Your task to perform on an android device: turn vacation reply on in the gmail app Image 0: 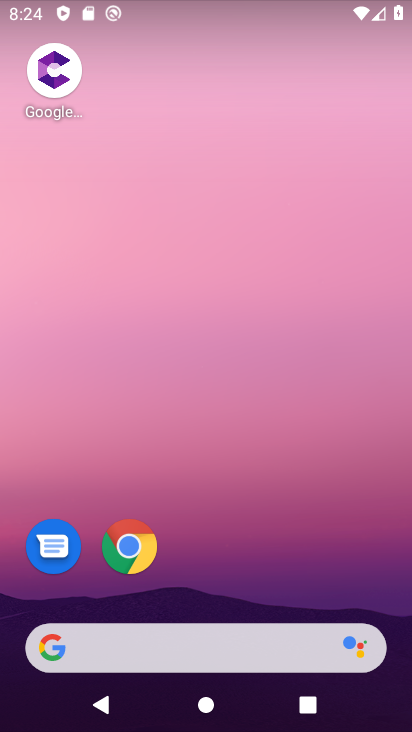
Step 0: drag from (399, 698) to (359, 73)
Your task to perform on an android device: turn vacation reply on in the gmail app Image 1: 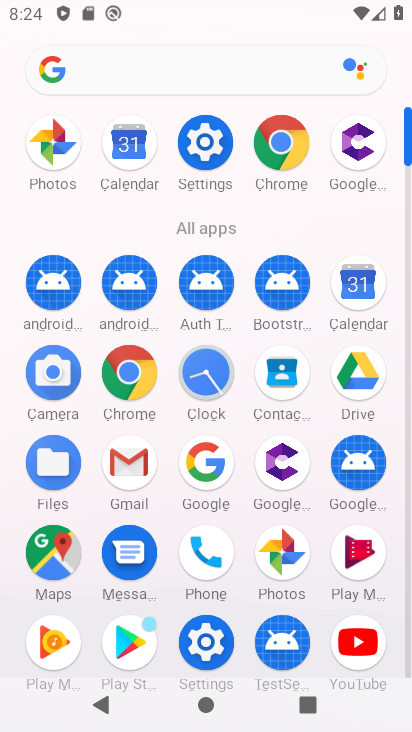
Step 1: click (123, 479)
Your task to perform on an android device: turn vacation reply on in the gmail app Image 2: 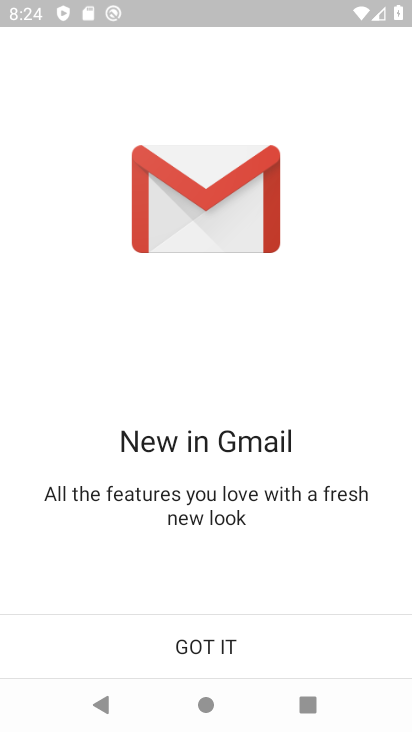
Step 2: click (212, 646)
Your task to perform on an android device: turn vacation reply on in the gmail app Image 3: 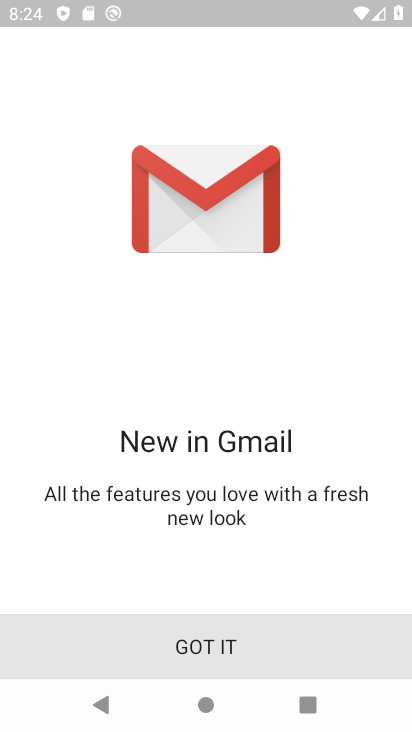
Step 3: click (212, 646)
Your task to perform on an android device: turn vacation reply on in the gmail app Image 4: 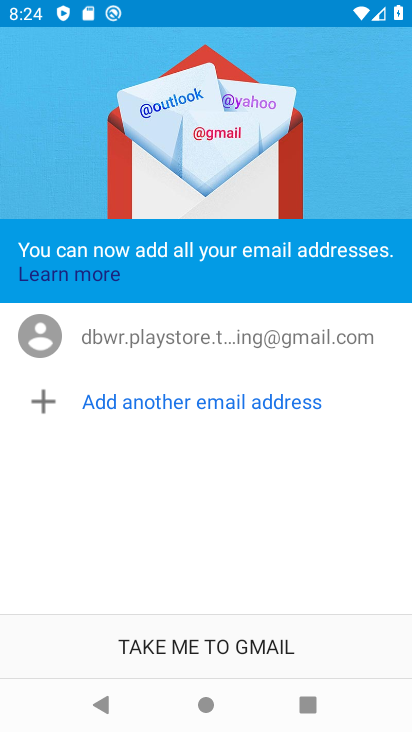
Step 4: click (212, 646)
Your task to perform on an android device: turn vacation reply on in the gmail app Image 5: 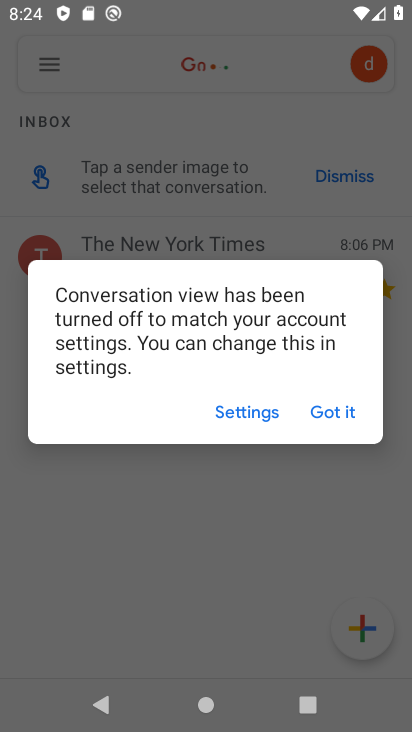
Step 5: click (317, 417)
Your task to perform on an android device: turn vacation reply on in the gmail app Image 6: 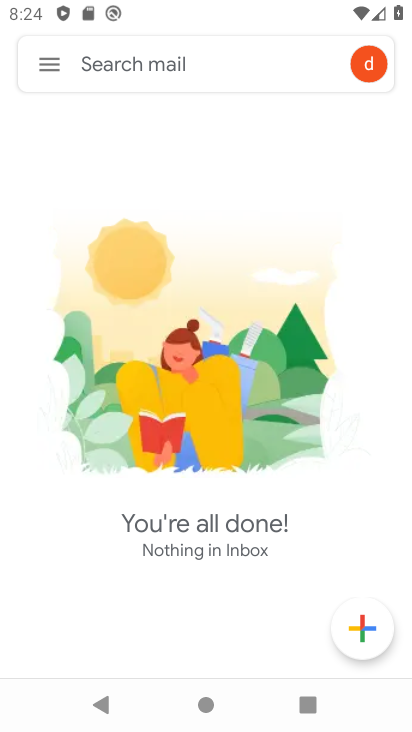
Step 6: click (54, 66)
Your task to perform on an android device: turn vacation reply on in the gmail app Image 7: 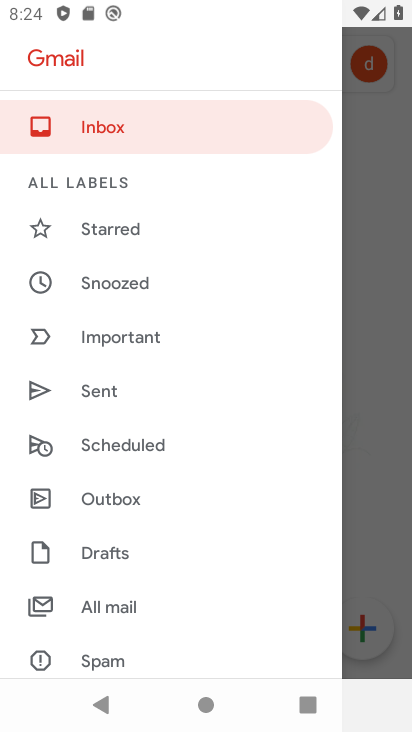
Step 7: drag from (198, 648) to (212, 186)
Your task to perform on an android device: turn vacation reply on in the gmail app Image 8: 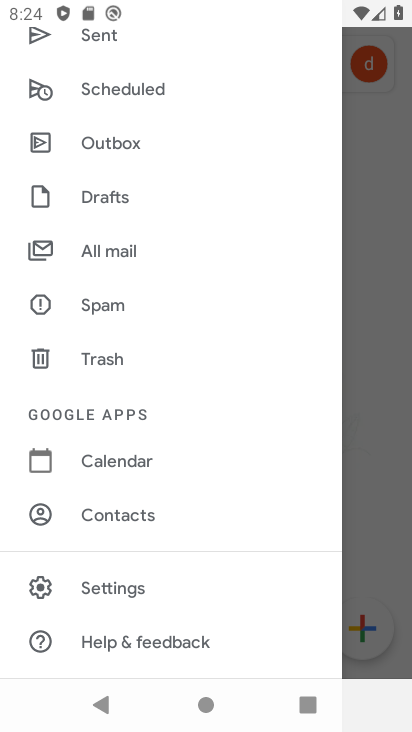
Step 8: click (95, 593)
Your task to perform on an android device: turn vacation reply on in the gmail app Image 9: 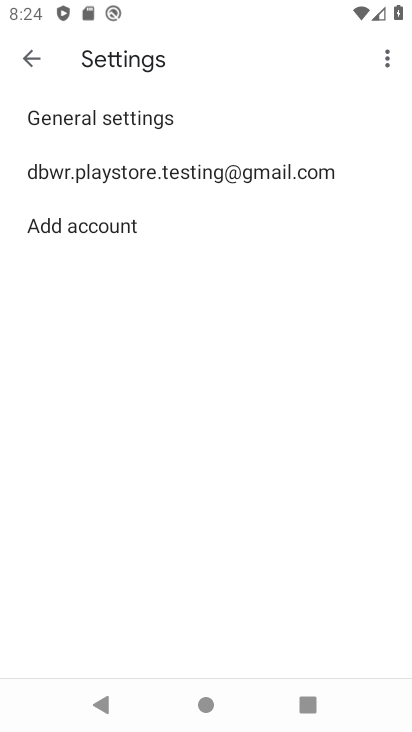
Step 9: click (98, 117)
Your task to perform on an android device: turn vacation reply on in the gmail app Image 10: 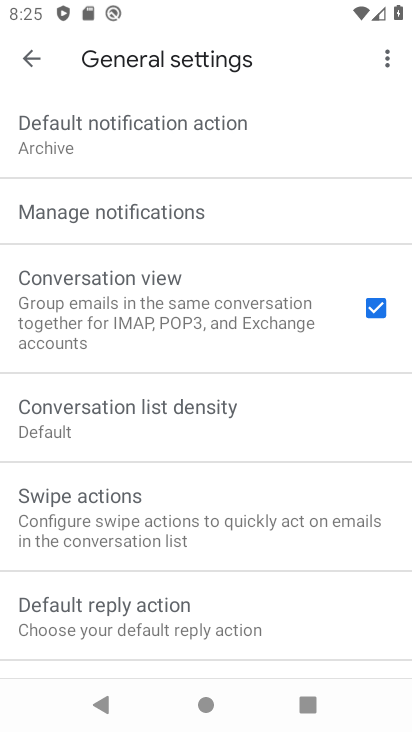
Step 10: drag from (204, 184) to (226, 454)
Your task to perform on an android device: turn vacation reply on in the gmail app Image 11: 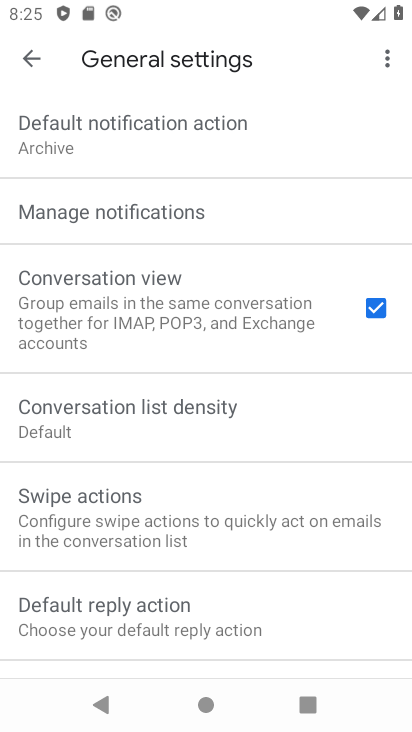
Step 11: drag from (204, 574) to (200, 201)
Your task to perform on an android device: turn vacation reply on in the gmail app Image 12: 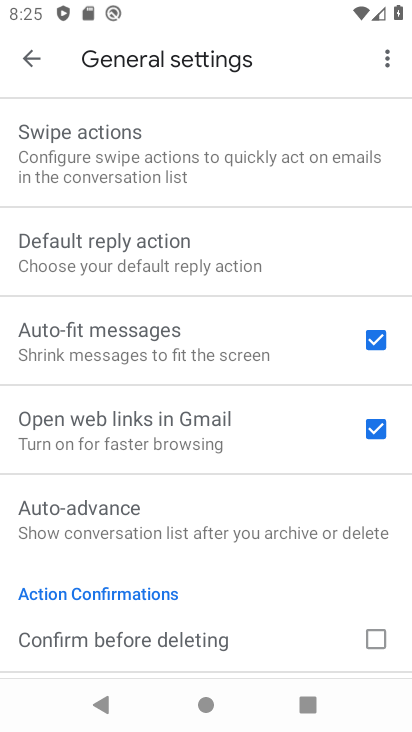
Step 12: drag from (177, 577) to (191, 267)
Your task to perform on an android device: turn vacation reply on in the gmail app Image 13: 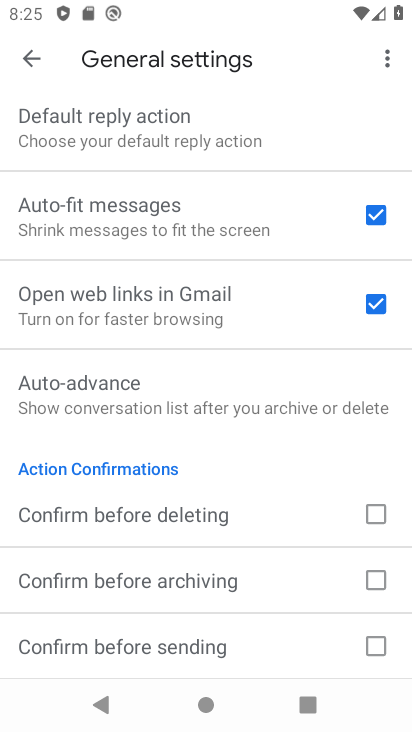
Step 13: drag from (173, 600) to (195, 253)
Your task to perform on an android device: turn vacation reply on in the gmail app Image 14: 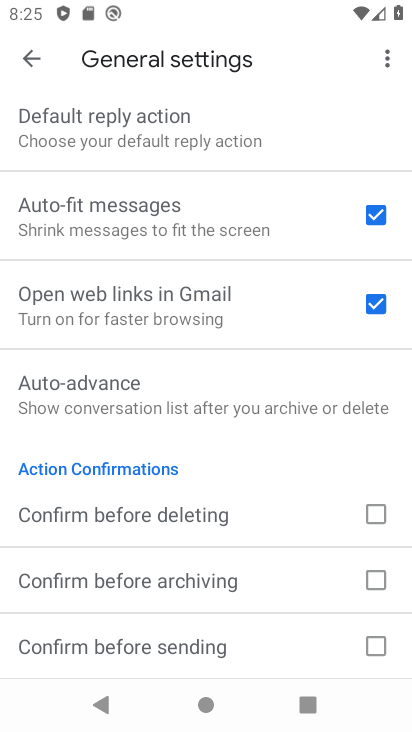
Step 14: click (36, 56)
Your task to perform on an android device: turn vacation reply on in the gmail app Image 15: 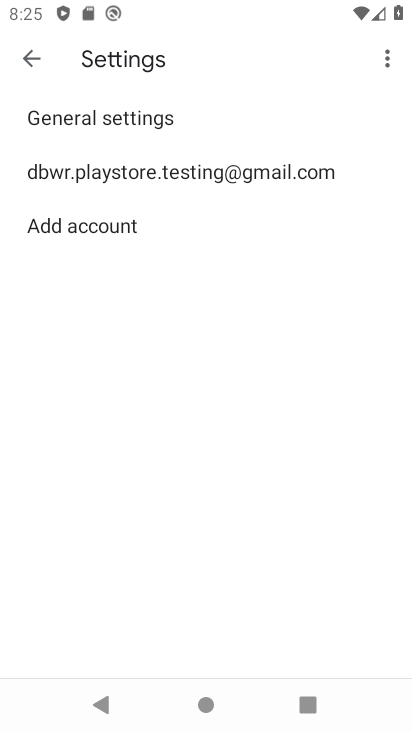
Step 15: click (50, 170)
Your task to perform on an android device: turn vacation reply on in the gmail app Image 16: 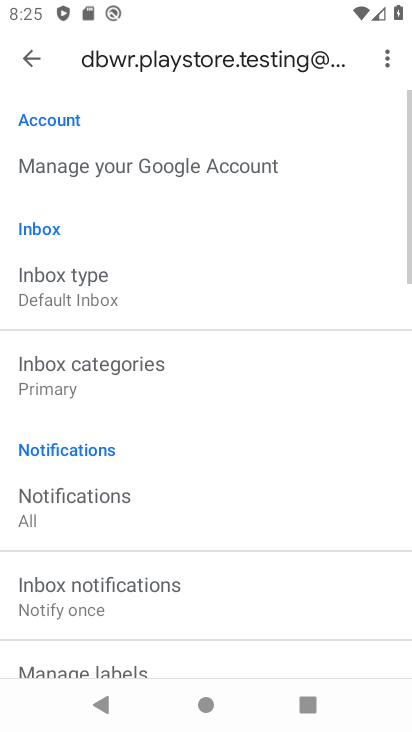
Step 16: drag from (217, 575) to (221, 186)
Your task to perform on an android device: turn vacation reply on in the gmail app Image 17: 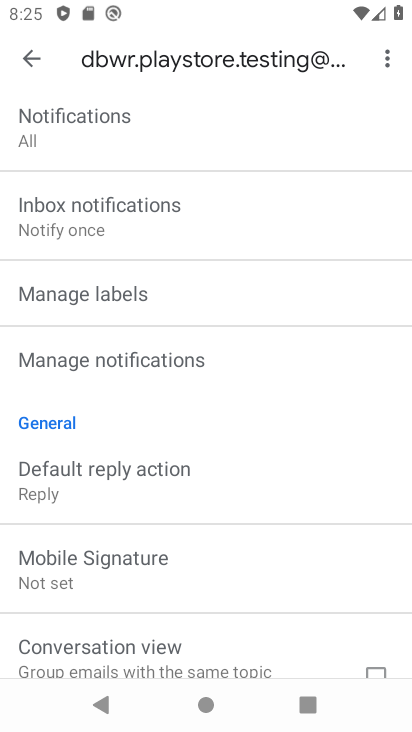
Step 17: drag from (254, 581) to (259, 161)
Your task to perform on an android device: turn vacation reply on in the gmail app Image 18: 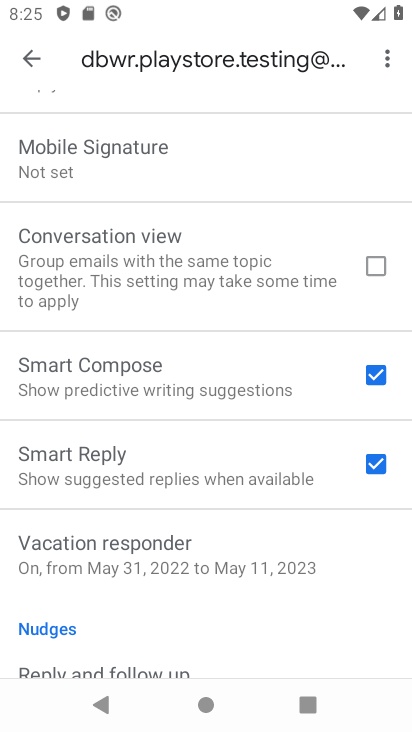
Step 18: click (191, 572)
Your task to perform on an android device: turn vacation reply on in the gmail app Image 19: 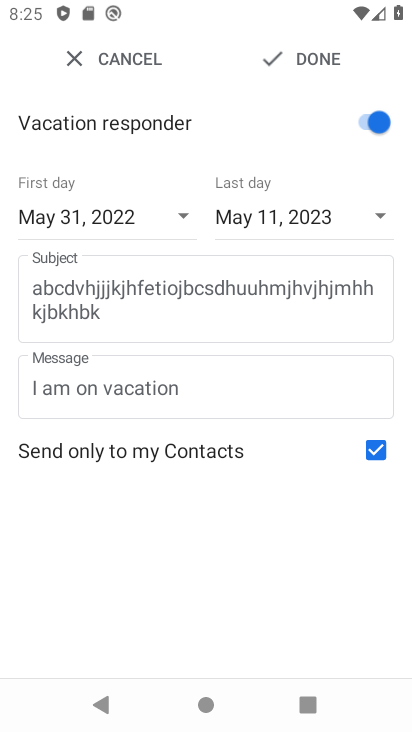
Step 19: task complete